Your task to perform on an android device: open app "Pinterest" (install if not already installed) Image 0: 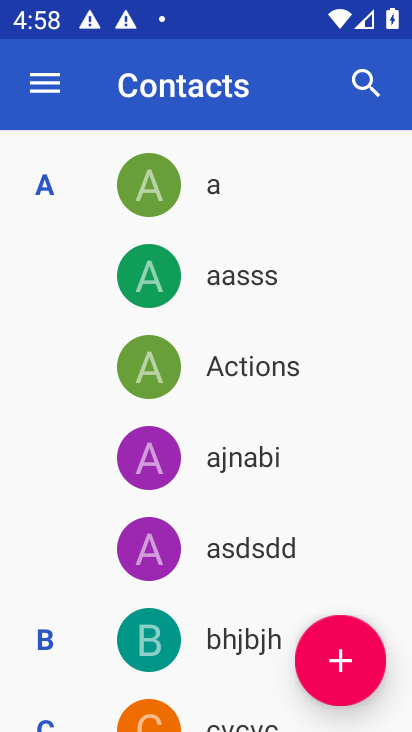
Step 0: press back button
Your task to perform on an android device: open app "Pinterest" (install if not already installed) Image 1: 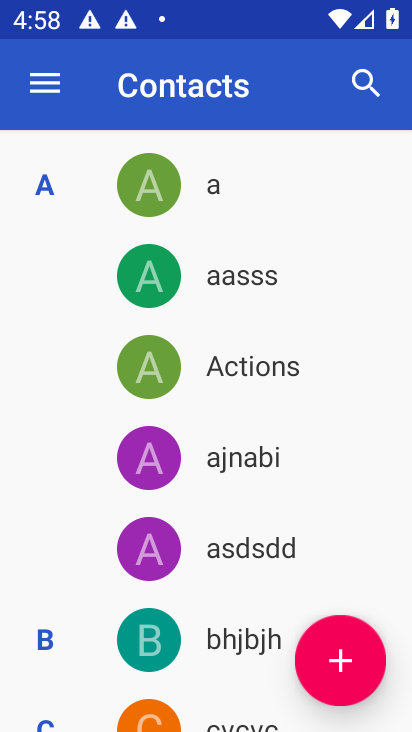
Step 1: press back button
Your task to perform on an android device: open app "Pinterest" (install if not already installed) Image 2: 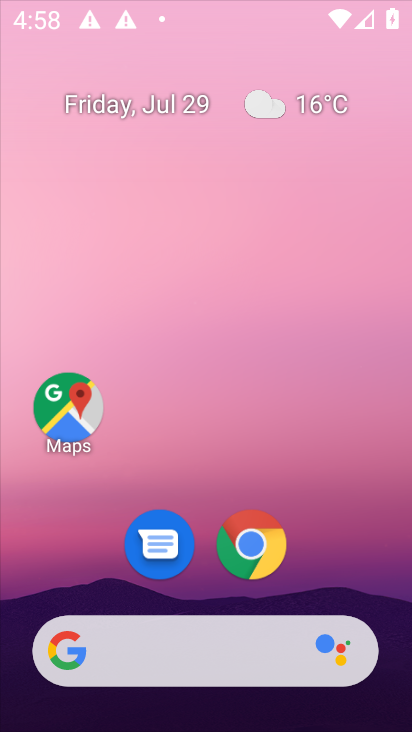
Step 2: press back button
Your task to perform on an android device: open app "Pinterest" (install if not already installed) Image 3: 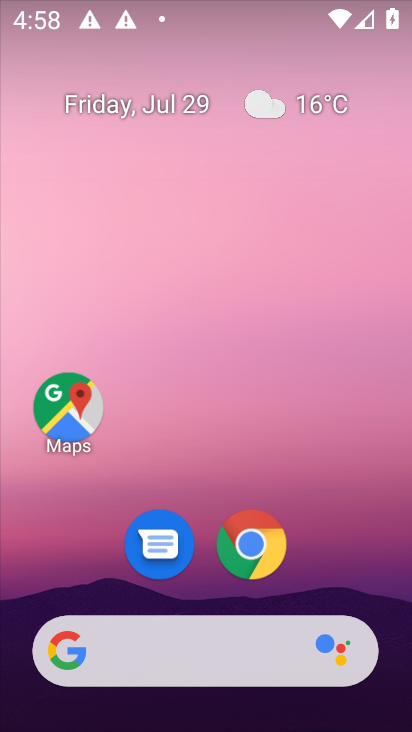
Step 3: press back button
Your task to perform on an android device: open app "Pinterest" (install if not already installed) Image 4: 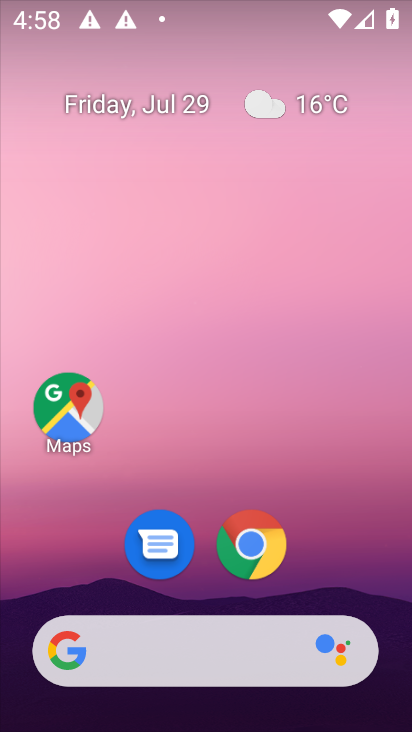
Step 4: press home button
Your task to perform on an android device: open app "Pinterest" (install if not already installed) Image 5: 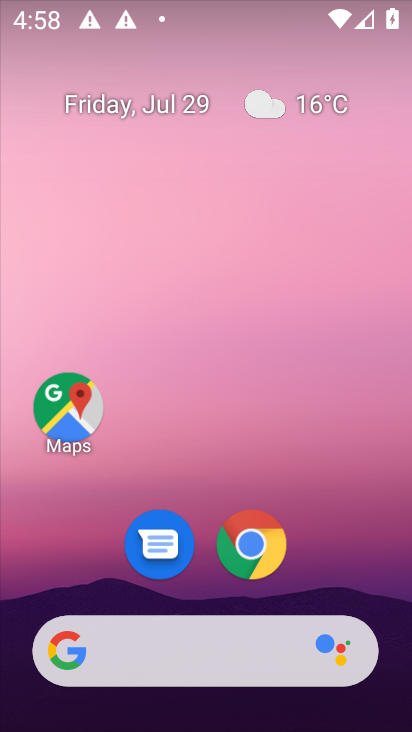
Step 5: drag from (252, 667) to (241, 84)
Your task to perform on an android device: open app "Pinterest" (install if not already installed) Image 6: 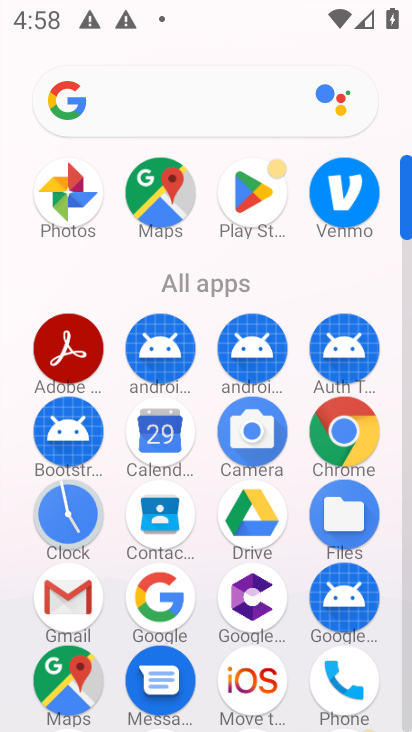
Step 6: drag from (239, 554) to (230, 162)
Your task to perform on an android device: open app "Pinterest" (install if not already installed) Image 7: 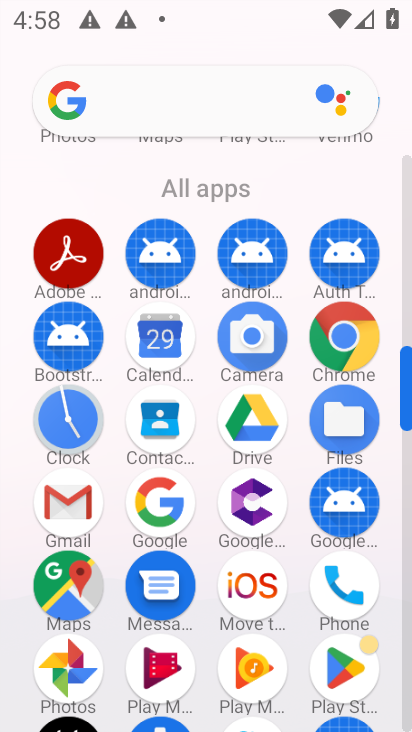
Step 7: click (249, 183)
Your task to perform on an android device: open app "Pinterest" (install if not already installed) Image 8: 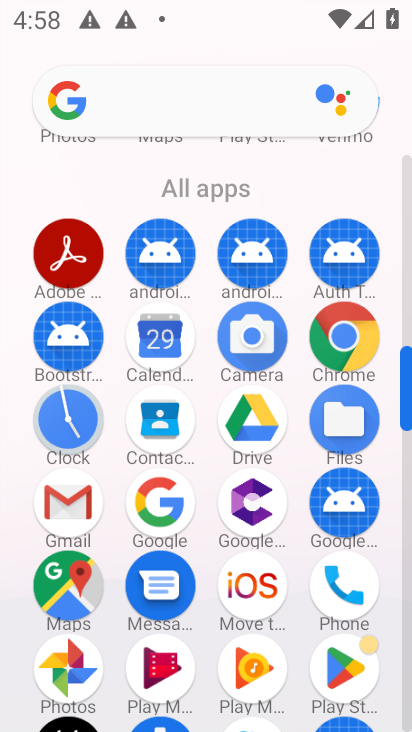
Step 8: drag from (252, 192) to (275, 397)
Your task to perform on an android device: open app "Pinterest" (install if not already installed) Image 9: 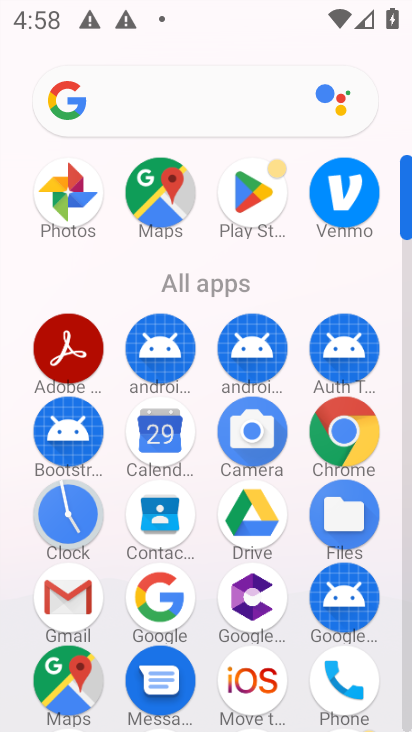
Step 9: click (248, 187)
Your task to perform on an android device: open app "Pinterest" (install if not already installed) Image 10: 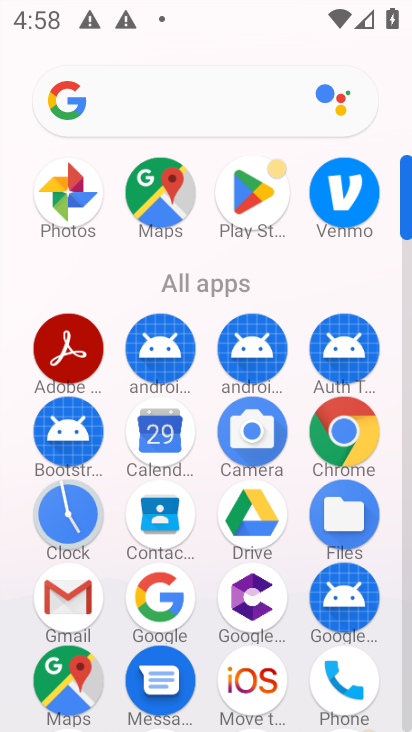
Step 10: click (248, 187)
Your task to perform on an android device: open app "Pinterest" (install if not already installed) Image 11: 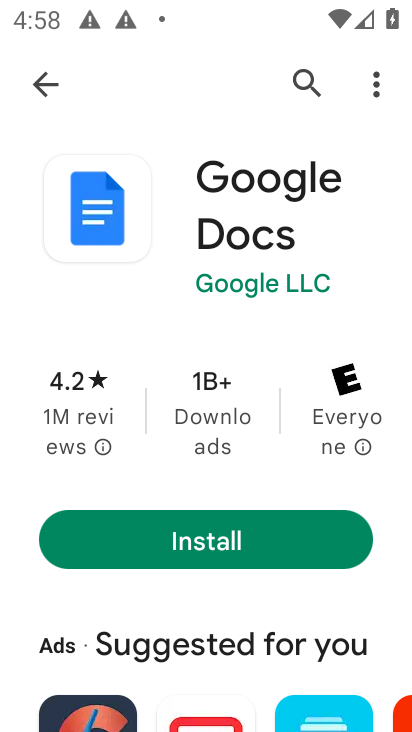
Step 11: click (289, 201)
Your task to perform on an android device: open app "Pinterest" (install if not already installed) Image 12: 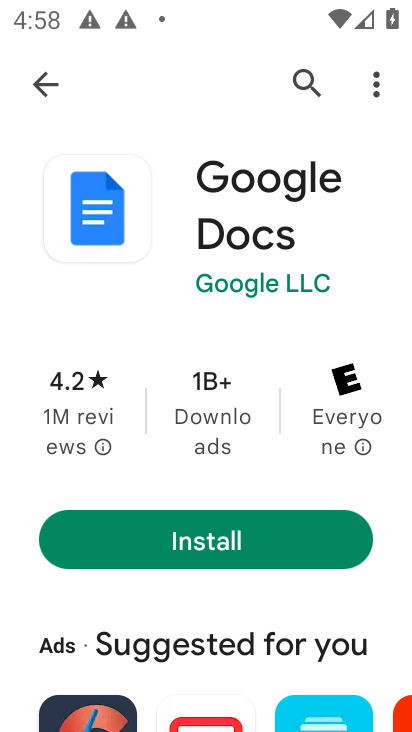
Step 12: click (43, 90)
Your task to perform on an android device: open app "Pinterest" (install if not already installed) Image 13: 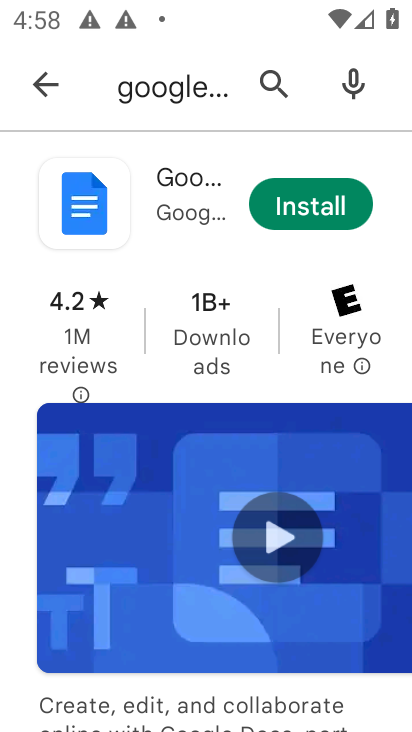
Step 13: click (228, 87)
Your task to perform on an android device: open app "Pinterest" (install if not already installed) Image 14: 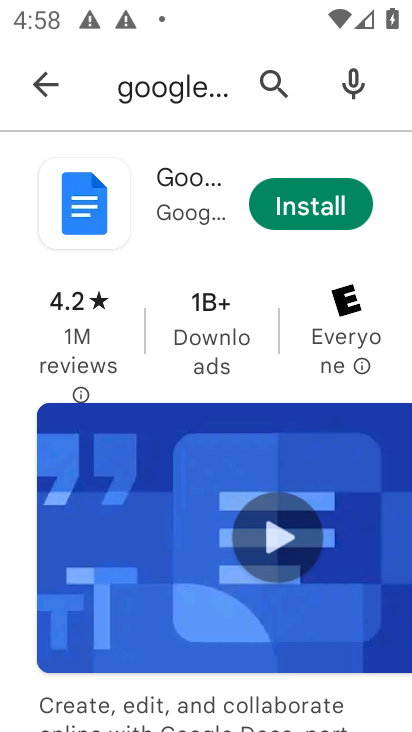
Step 14: click (228, 87)
Your task to perform on an android device: open app "Pinterest" (install if not already installed) Image 15: 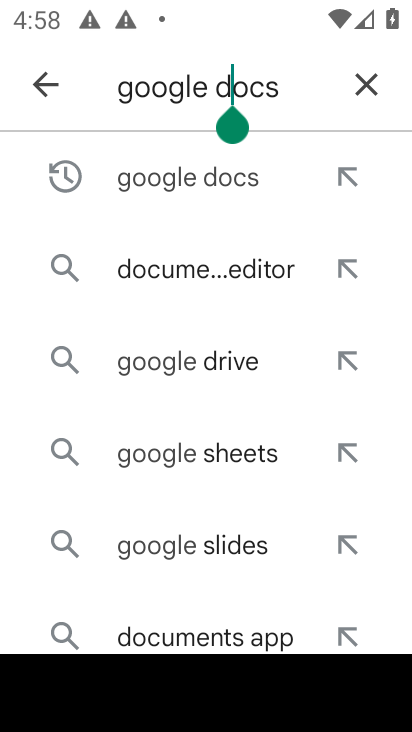
Step 15: click (361, 81)
Your task to perform on an android device: open app "Pinterest" (install if not already installed) Image 16: 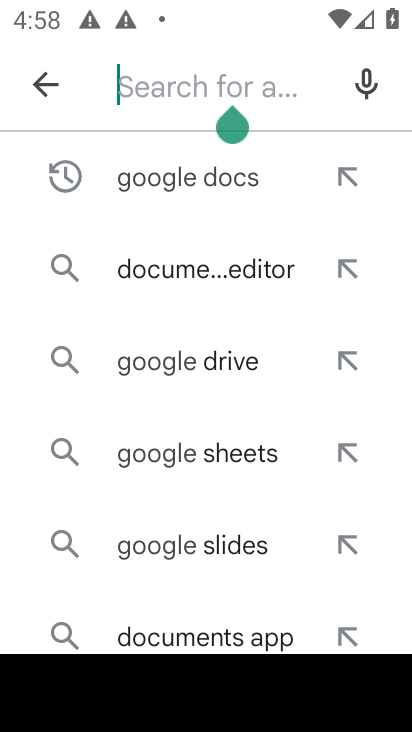
Step 16: click (350, 87)
Your task to perform on an android device: open app "Pinterest" (install if not already installed) Image 17: 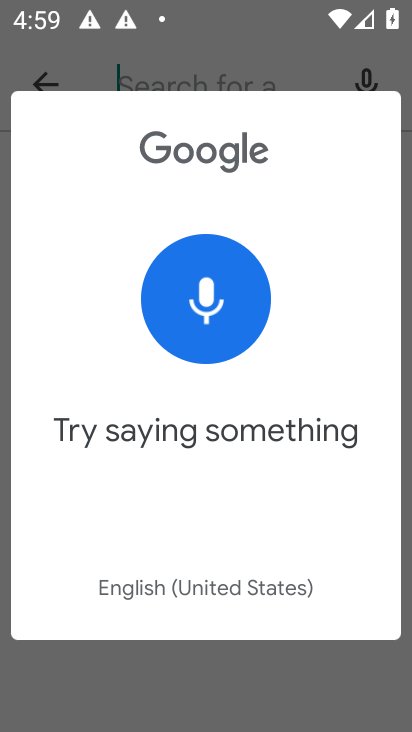
Step 17: click (221, 34)
Your task to perform on an android device: open app "Pinterest" (install if not already installed) Image 18: 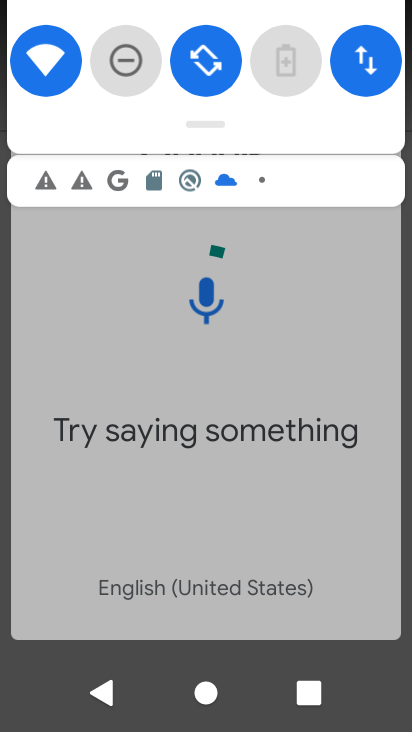
Step 18: click (221, 34)
Your task to perform on an android device: open app "Pinterest" (install if not already installed) Image 19: 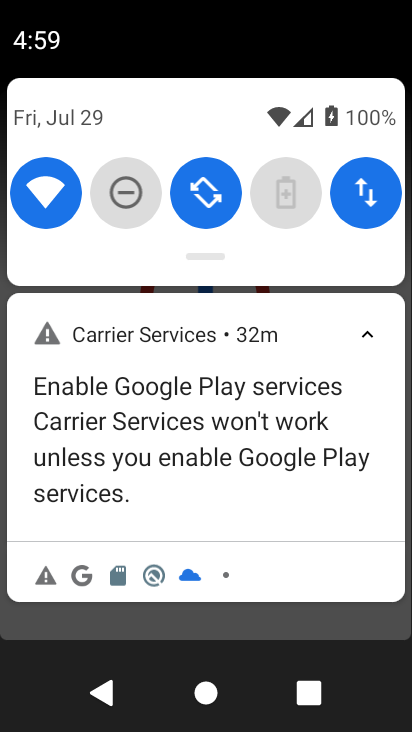
Step 19: click (139, 611)
Your task to perform on an android device: open app "Pinterest" (install if not already installed) Image 20: 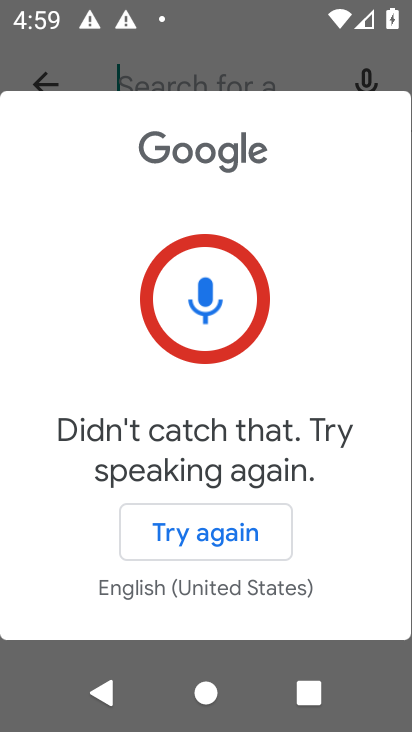
Step 20: click (139, 611)
Your task to perform on an android device: open app "Pinterest" (install if not already installed) Image 21: 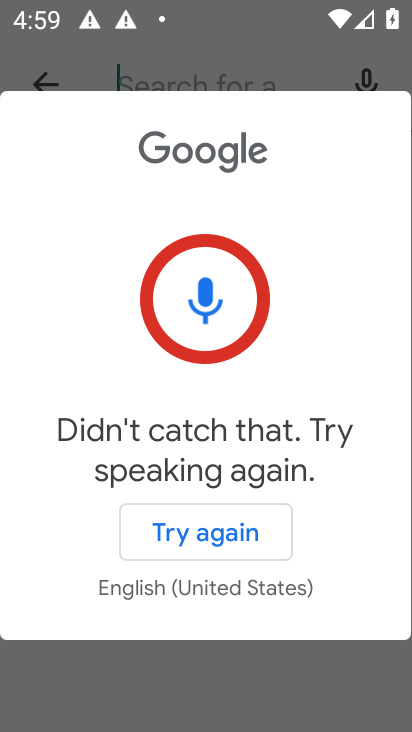
Step 21: click (160, 60)
Your task to perform on an android device: open app "Pinterest" (install if not already installed) Image 22: 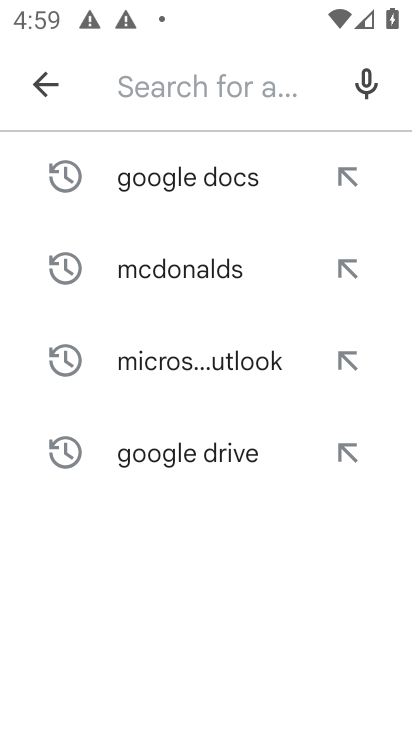
Step 22: click (160, 60)
Your task to perform on an android device: open app "Pinterest" (install if not already installed) Image 23: 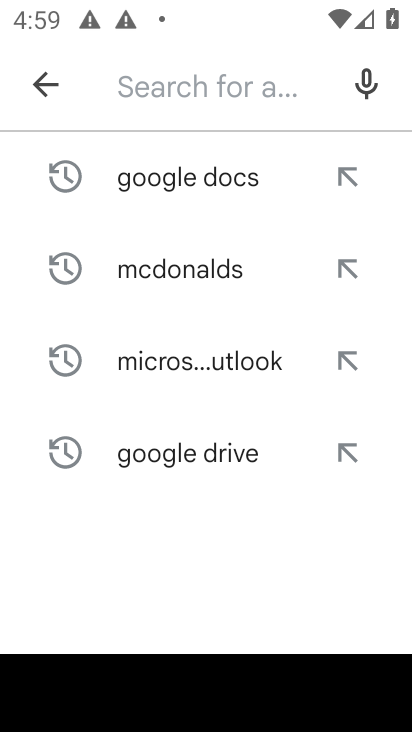
Step 23: type "pinterest"
Your task to perform on an android device: open app "Pinterest" (install if not already installed) Image 24: 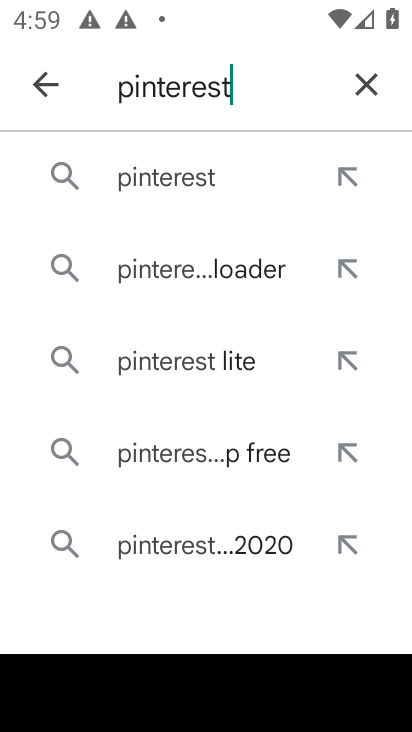
Step 24: click (181, 182)
Your task to perform on an android device: open app "Pinterest" (install if not already installed) Image 25: 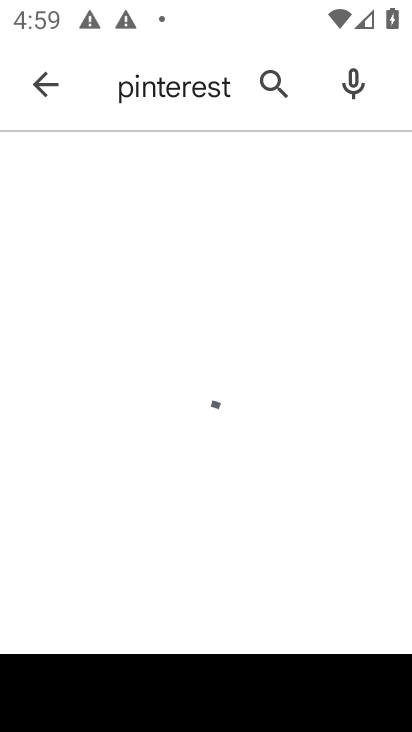
Step 25: click (181, 182)
Your task to perform on an android device: open app "Pinterest" (install if not already installed) Image 26: 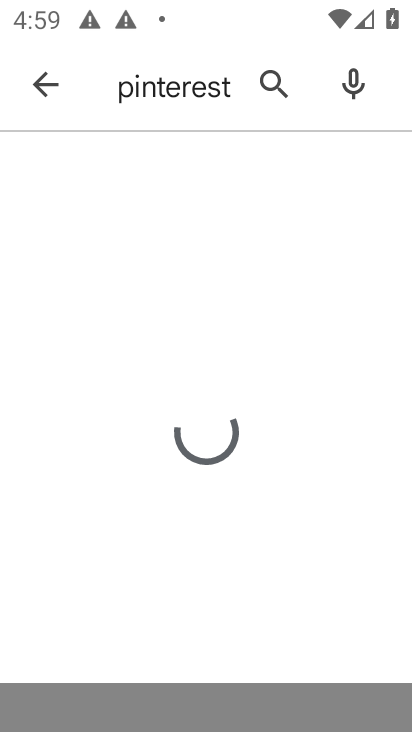
Step 26: click (181, 182)
Your task to perform on an android device: open app "Pinterest" (install if not already installed) Image 27: 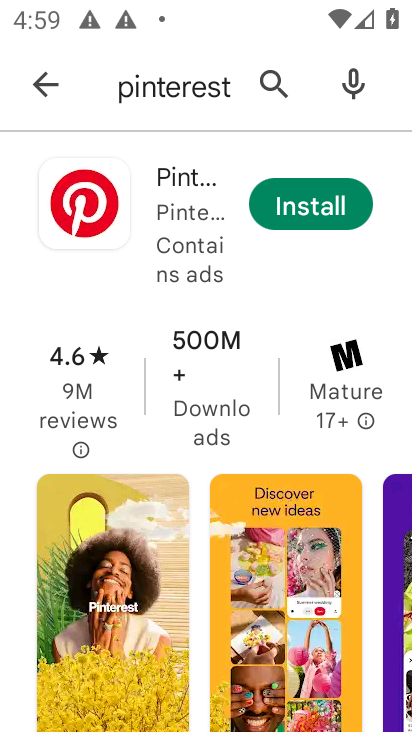
Step 27: click (323, 184)
Your task to perform on an android device: open app "Pinterest" (install if not already installed) Image 28: 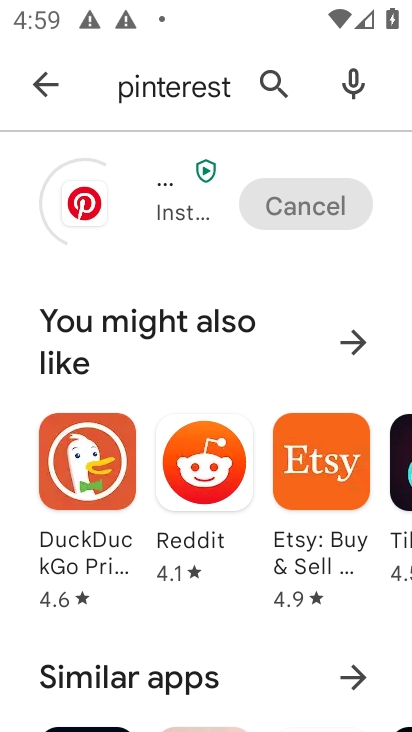
Step 28: task complete